Your task to perform on an android device: visit the assistant section in the google photos Image 0: 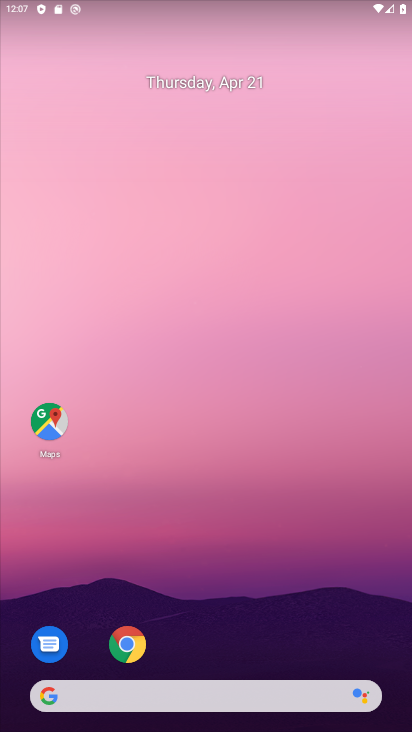
Step 0: drag from (194, 631) to (284, 68)
Your task to perform on an android device: visit the assistant section in the google photos Image 1: 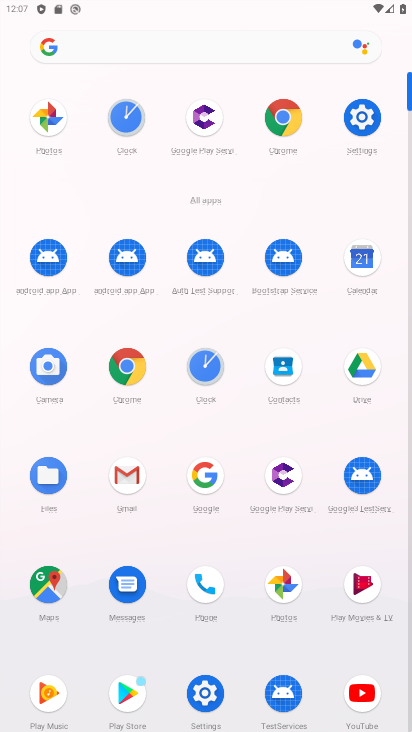
Step 1: click (280, 573)
Your task to perform on an android device: visit the assistant section in the google photos Image 2: 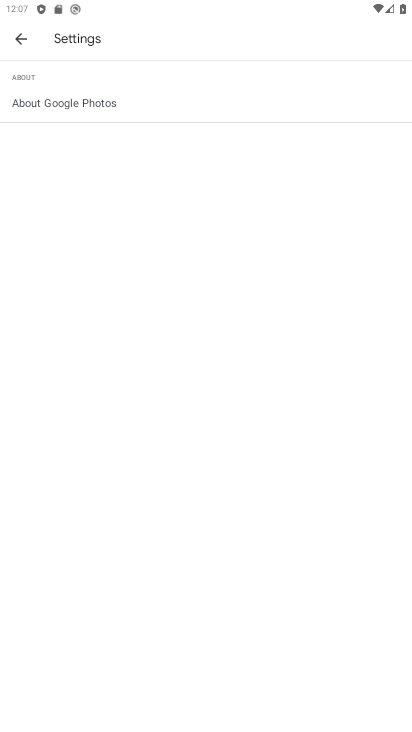
Step 2: click (26, 31)
Your task to perform on an android device: visit the assistant section in the google photos Image 3: 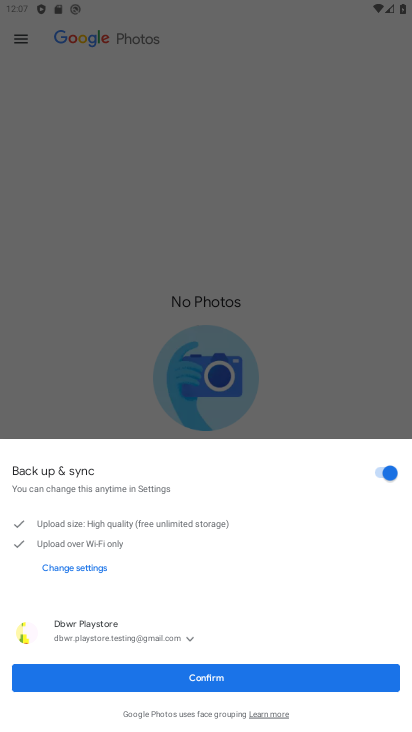
Step 3: click (198, 683)
Your task to perform on an android device: visit the assistant section in the google photos Image 4: 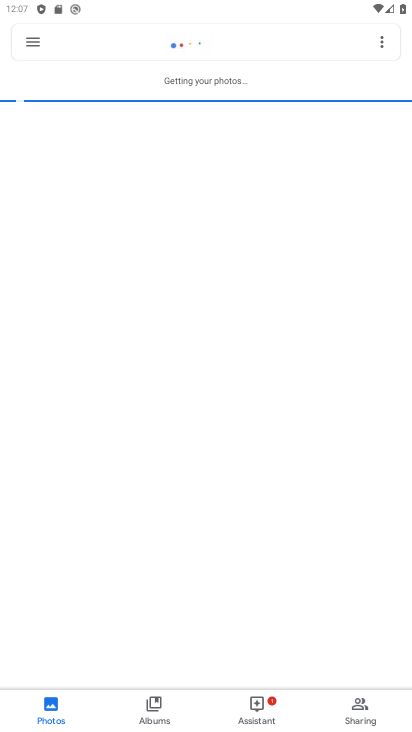
Step 4: press back button
Your task to perform on an android device: visit the assistant section in the google photos Image 5: 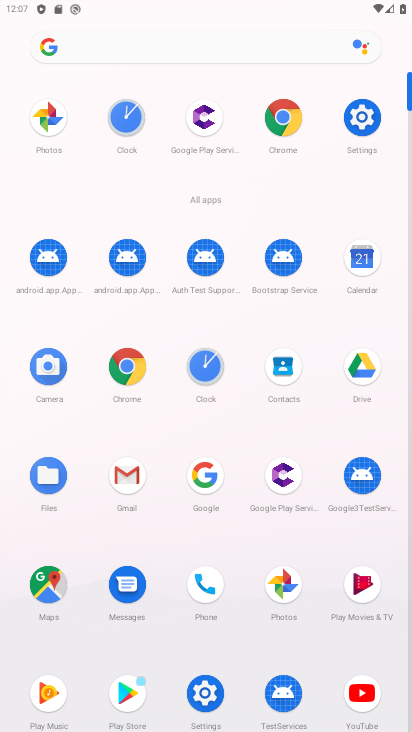
Step 5: click (286, 585)
Your task to perform on an android device: visit the assistant section in the google photos Image 6: 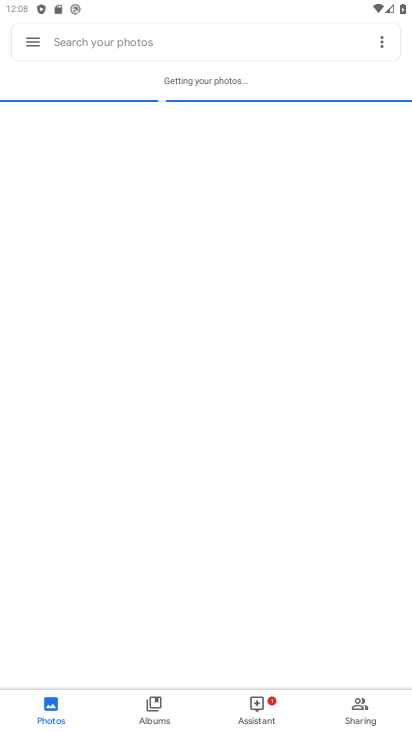
Step 6: click (261, 707)
Your task to perform on an android device: visit the assistant section in the google photos Image 7: 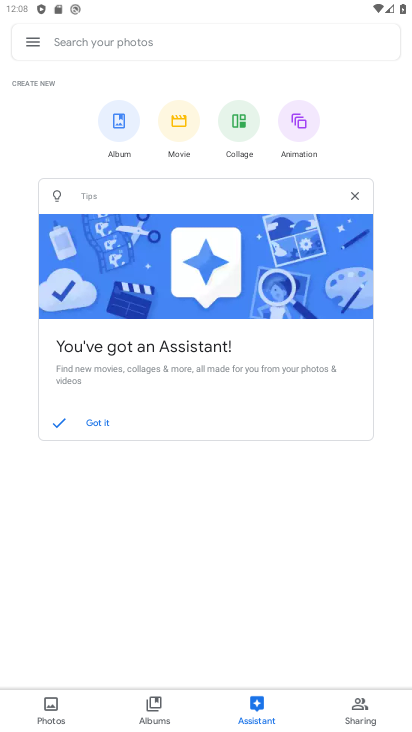
Step 7: task complete